Your task to perform on an android device: empty trash in the gmail app Image 0: 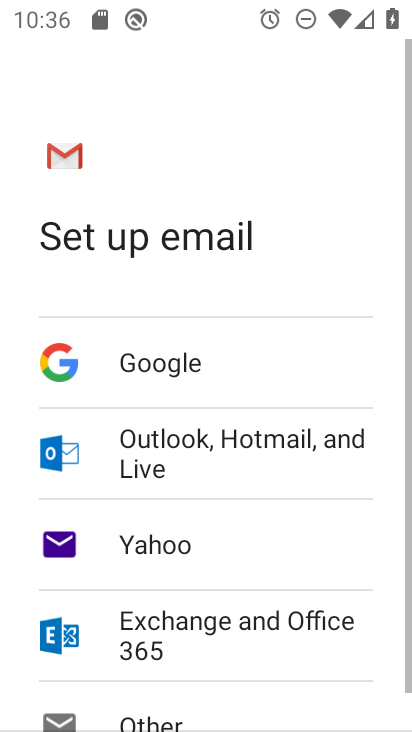
Step 0: press home button
Your task to perform on an android device: empty trash in the gmail app Image 1: 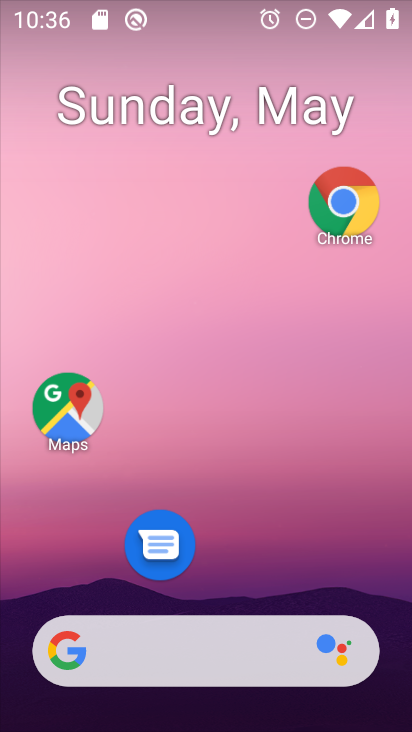
Step 1: drag from (287, 545) to (231, 241)
Your task to perform on an android device: empty trash in the gmail app Image 2: 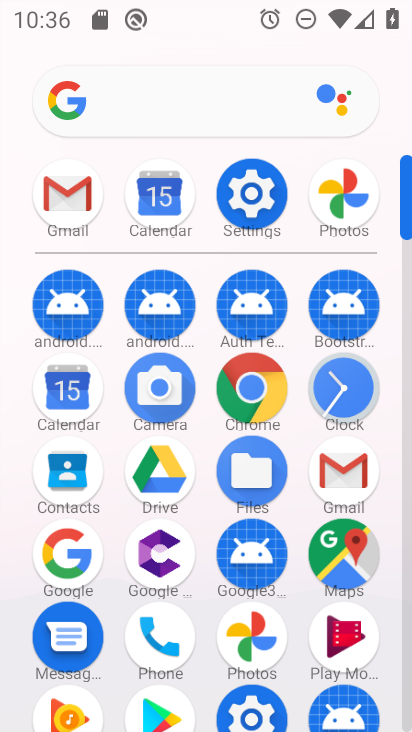
Step 2: click (361, 457)
Your task to perform on an android device: empty trash in the gmail app Image 3: 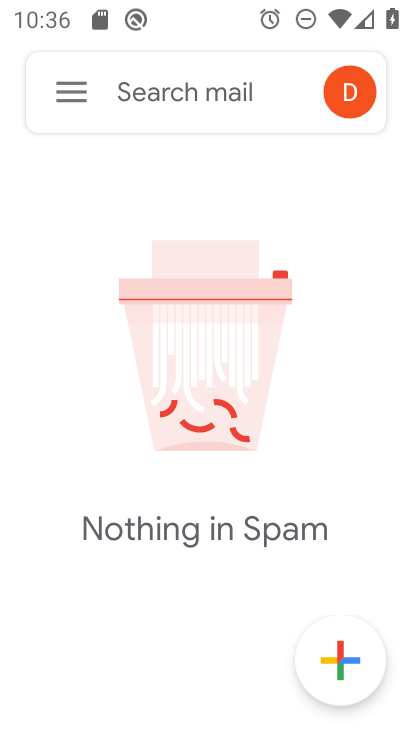
Step 3: click (71, 78)
Your task to perform on an android device: empty trash in the gmail app Image 4: 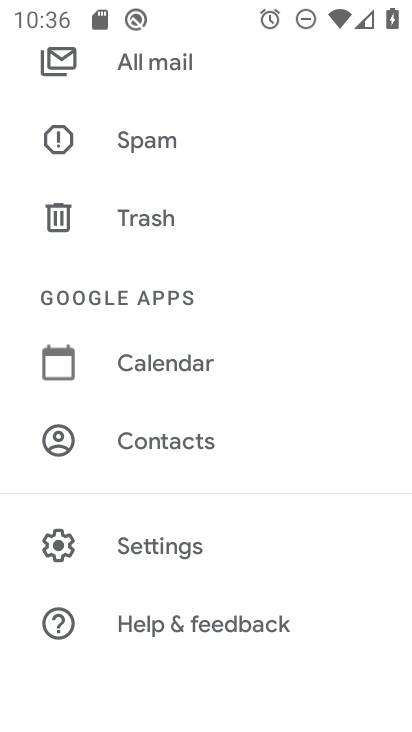
Step 4: click (145, 188)
Your task to perform on an android device: empty trash in the gmail app Image 5: 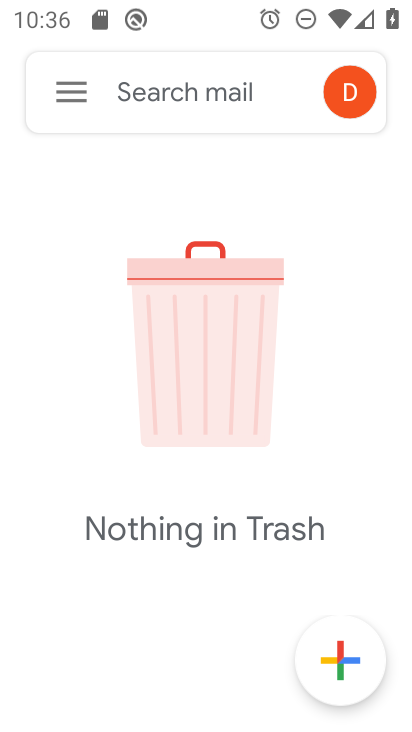
Step 5: task complete